Your task to perform on an android device: Open Youtube and go to the subscriptions tab Image 0: 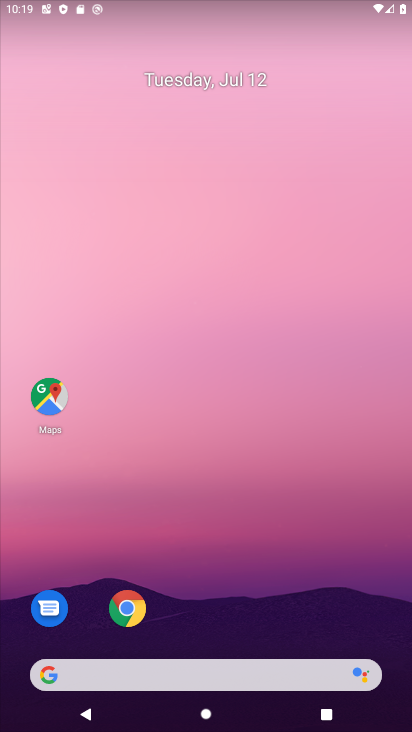
Step 0: drag from (257, 585) to (322, 70)
Your task to perform on an android device: Open Youtube and go to the subscriptions tab Image 1: 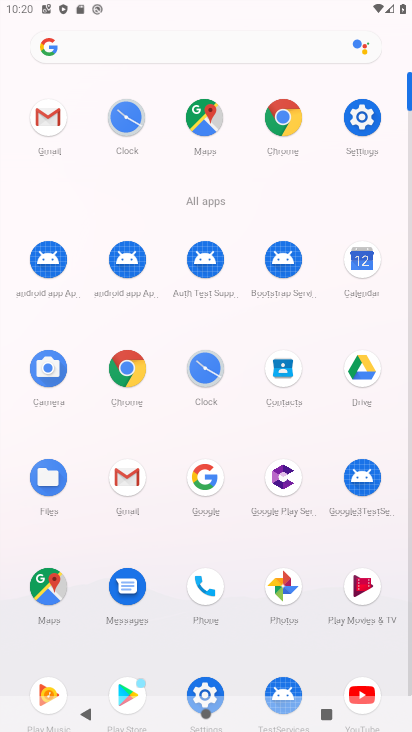
Step 1: click (362, 681)
Your task to perform on an android device: Open Youtube and go to the subscriptions tab Image 2: 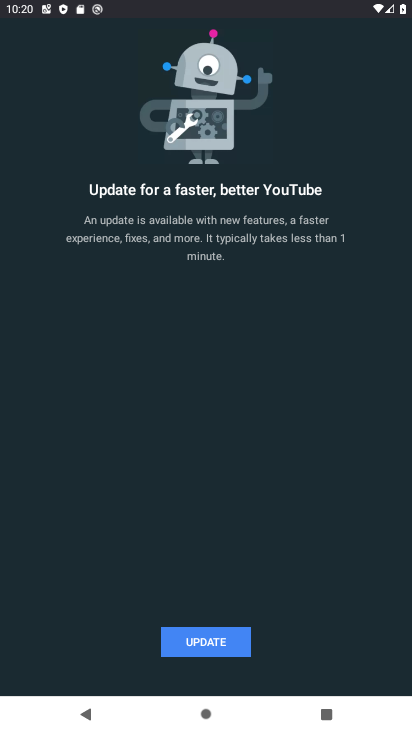
Step 2: click (228, 644)
Your task to perform on an android device: Open Youtube and go to the subscriptions tab Image 3: 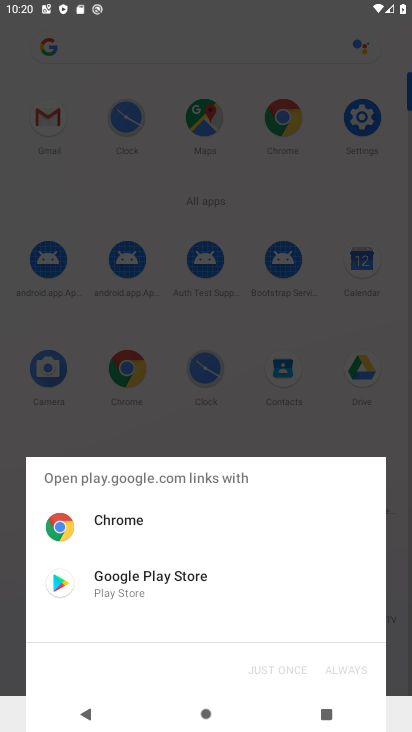
Step 3: click (110, 585)
Your task to perform on an android device: Open Youtube and go to the subscriptions tab Image 4: 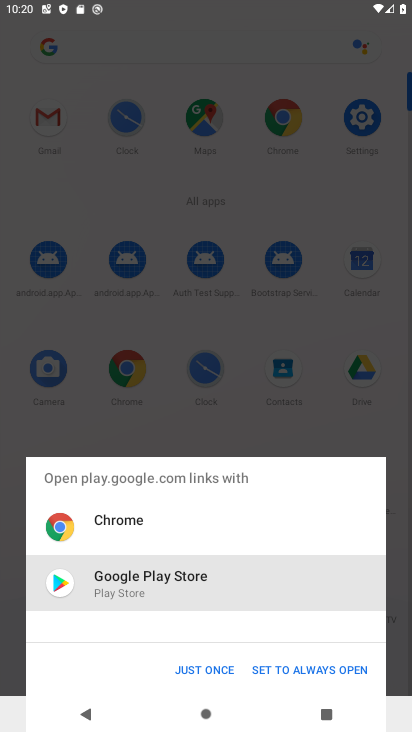
Step 4: click (200, 665)
Your task to perform on an android device: Open Youtube and go to the subscriptions tab Image 5: 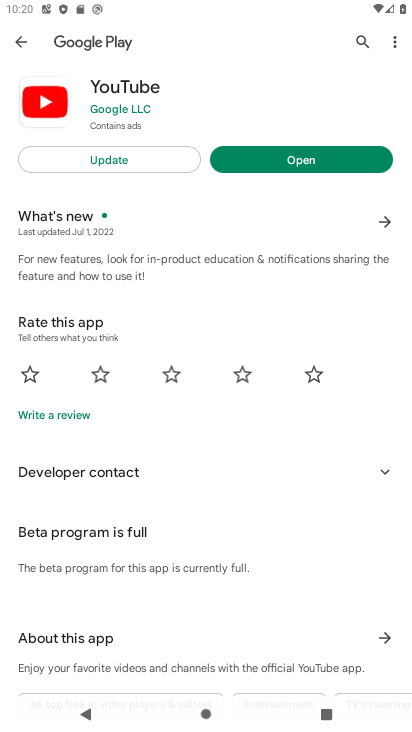
Step 5: click (138, 163)
Your task to perform on an android device: Open Youtube and go to the subscriptions tab Image 6: 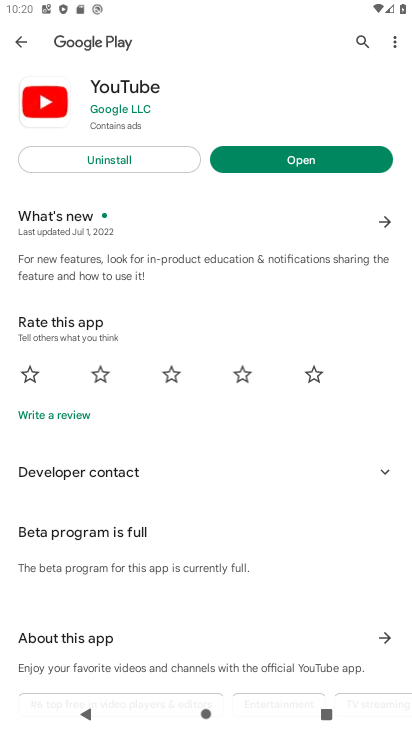
Step 6: click (287, 168)
Your task to perform on an android device: Open Youtube and go to the subscriptions tab Image 7: 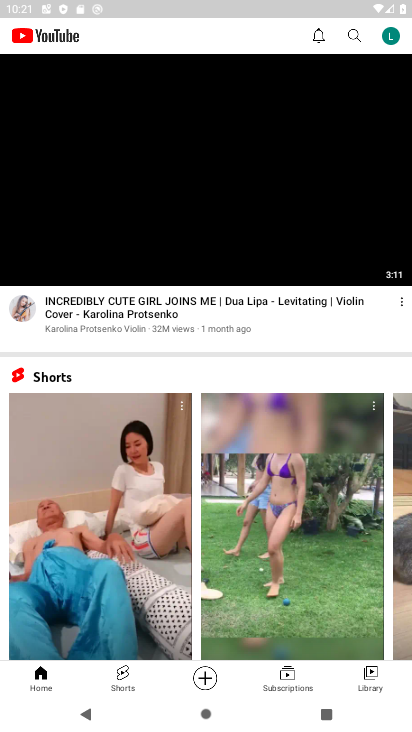
Step 7: click (280, 679)
Your task to perform on an android device: Open Youtube and go to the subscriptions tab Image 8: 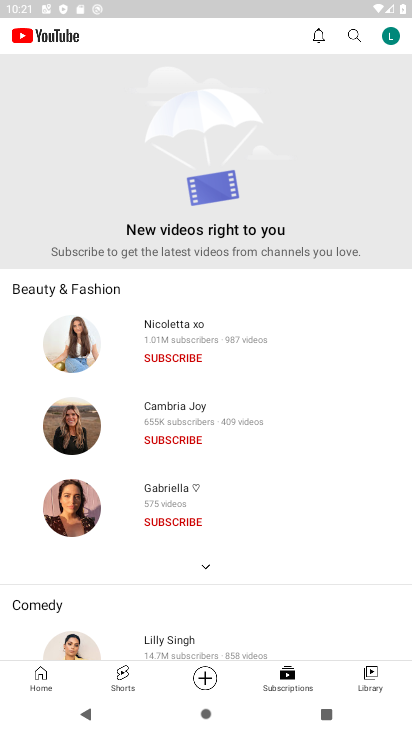
Step 8: task complete